Your task to perform on an android device: see sites visited before in the chrome app Image 0: 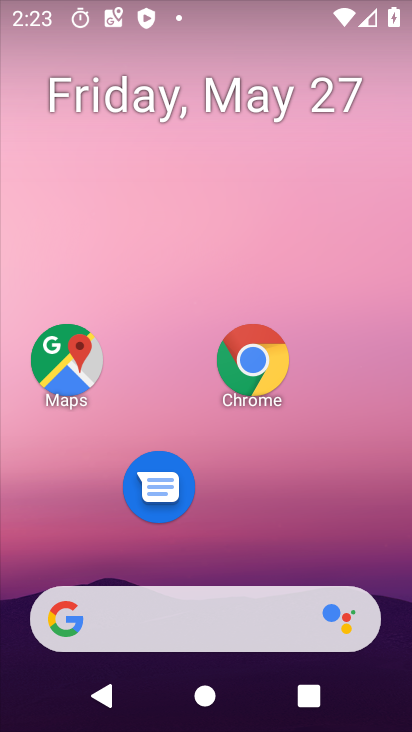
Step 0: click (260, 357)
Your task to perform on an android device: see sites visited before in the chrome app Image 1: 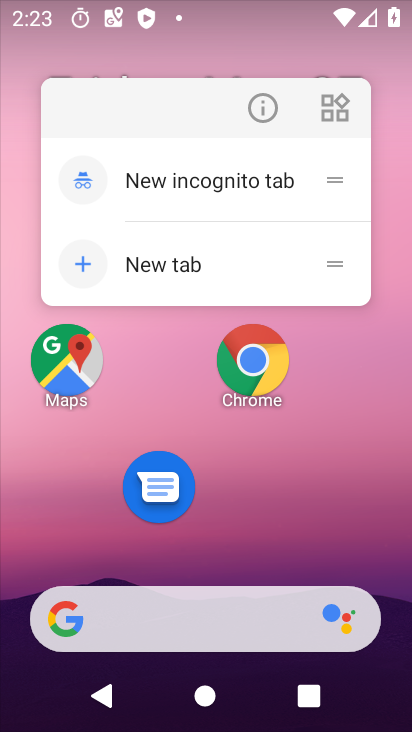
Step 1: click (260, 357)
Your task to perform on an android device: see sites visited before in the chrome app Image 2: 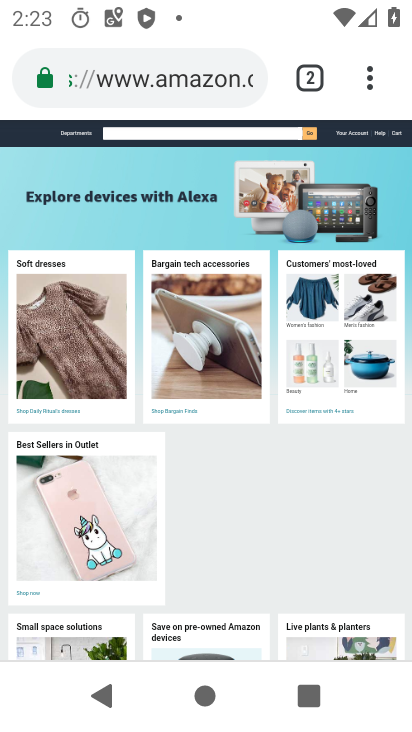
Step 2: click (362, 77)
Your task to perform on an android device: see sites visited before in the chrome app Image 3: 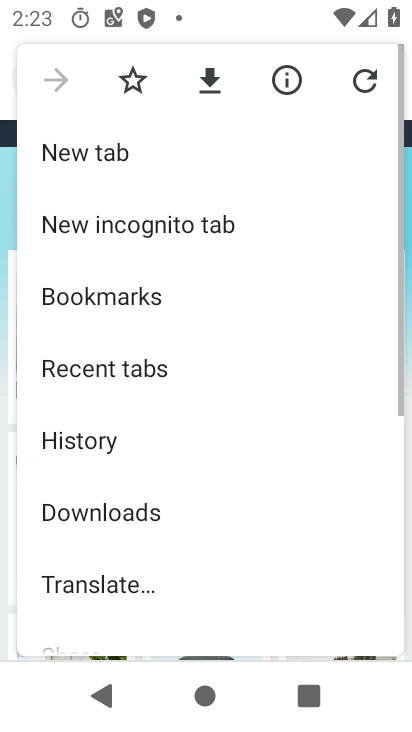
Step 3: drag from (272, 247) to (270, 156)
Your task to perform on an android device: see sites visited before in the chrome app Image 4: 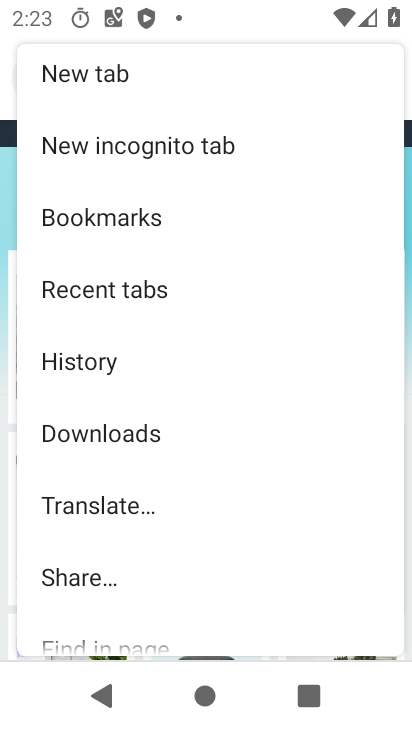
Step 4: click (133, 295)
Your task to perform on an android device: see sites visited before in the chrome app Image 5: 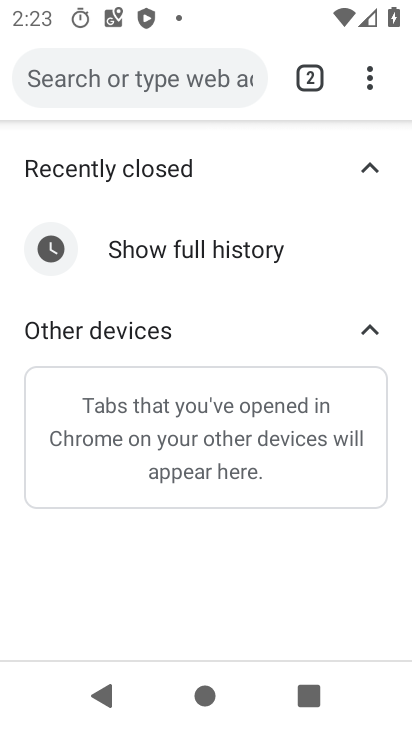
Step 5: task complete